Your task to perform on an android device: Open the map Image 0: 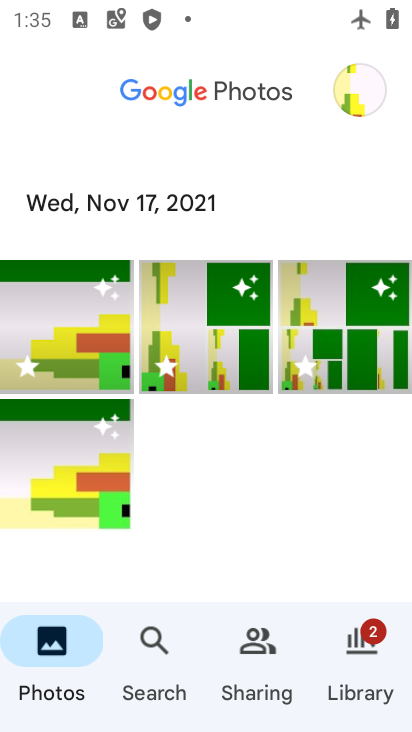
Step 0: press home button
Your task to perform on an android device: Open the map Image 1: 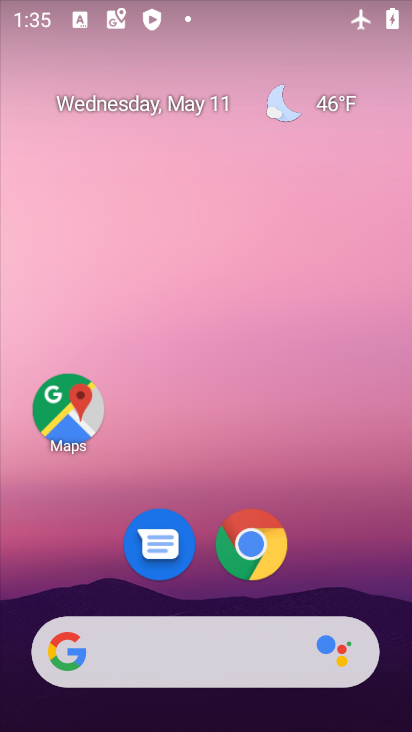
Step 1: click (67, 409)
Your task to perform on an android device: Open the map Image 2: 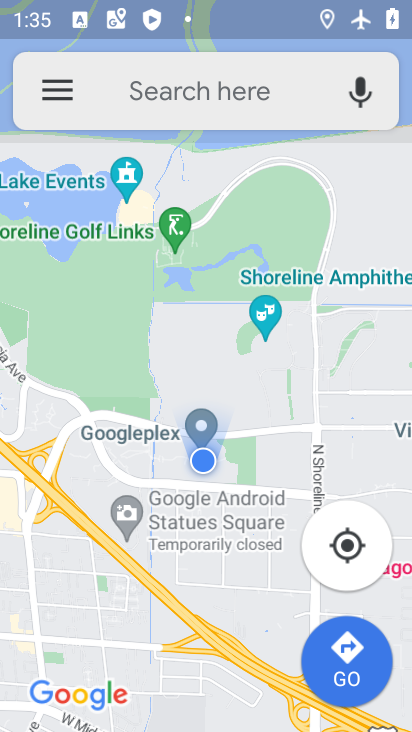
Step 2: task complete